Your task to perform on an android device: Check the weather Image 0: 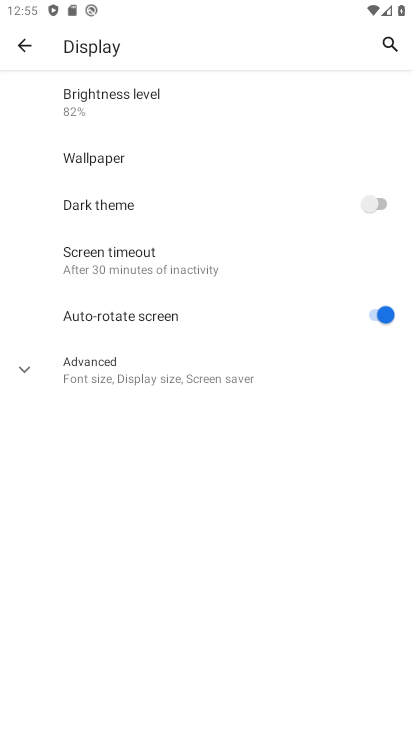
Step 0: press back button
Your task to perform on an android device: Check the weather Image 1: 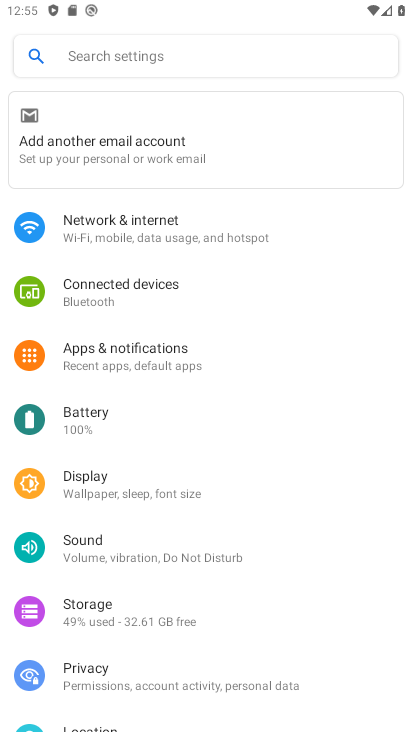
Step 1: press back button
Your task to perform on an android device: Check the weather Image 2: 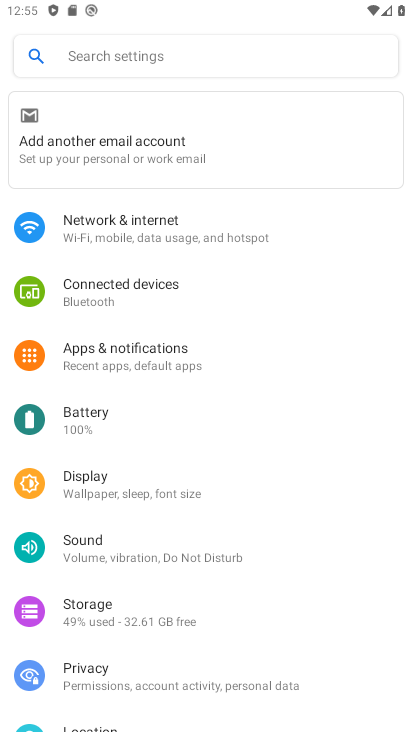
Step 2: press back button
Your task to perform on an android device: Check the weather Image 3: 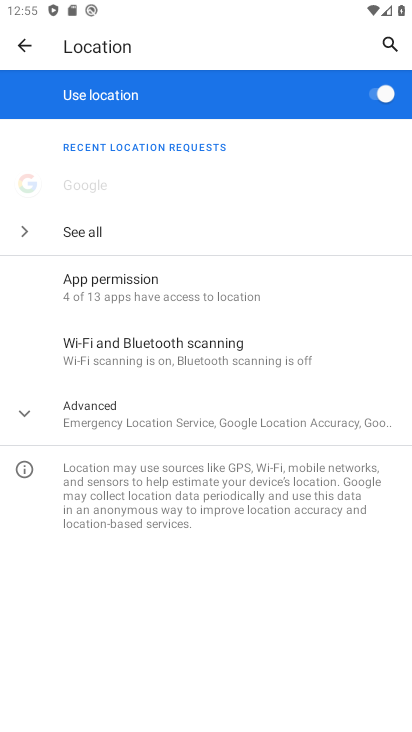
Step 3: press back button
Your task to perform on an android device: Check the weather Image 4: 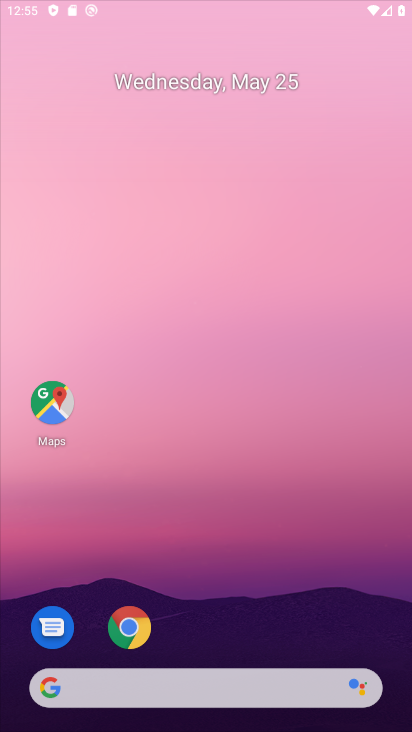
Step 4: press home button
Your task to perform on an android device: Check the weather Image 5: 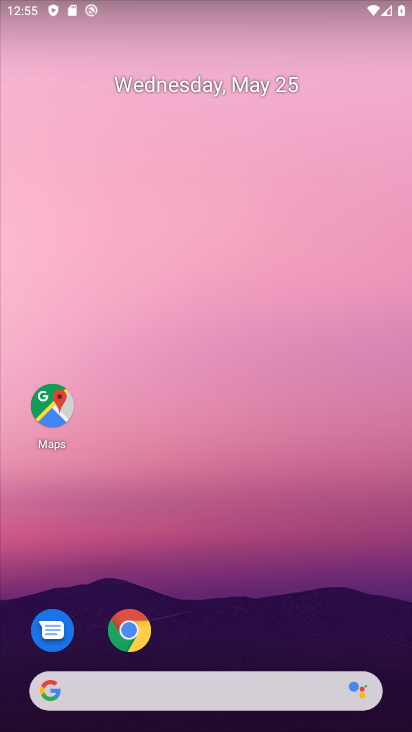
Step 5: drag from (1, 143) to (384, 398)
Your task to perform on an android device: Check the weather Image 6: 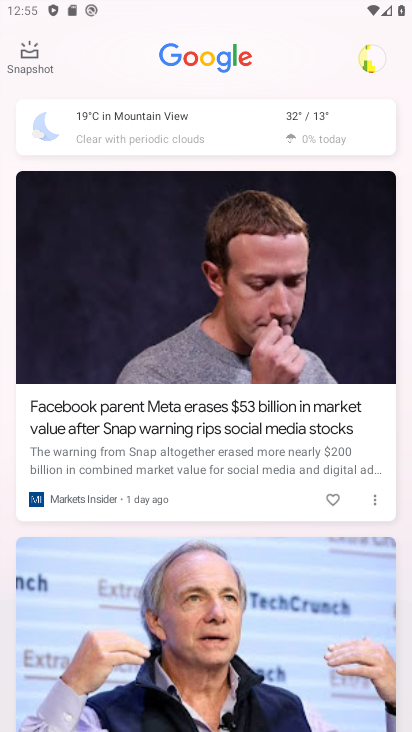
Step 6: drag from (54, 281) to (391, 399)
Your task to perform on an android device: Check the weather Image 7: 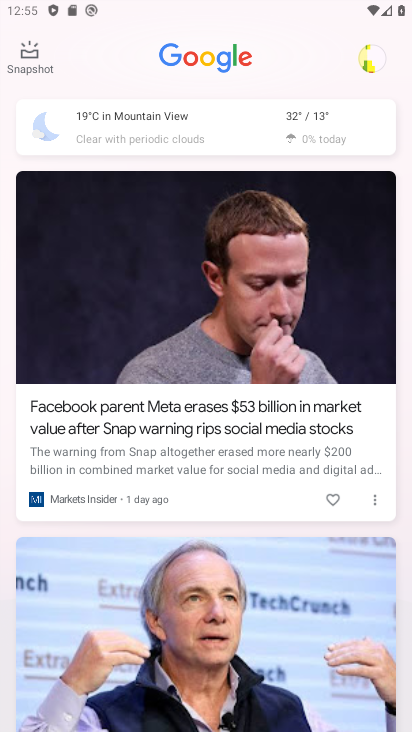
Step 7: click (170, 138)
Your task to perform on an android device: Check the weather Image 8: 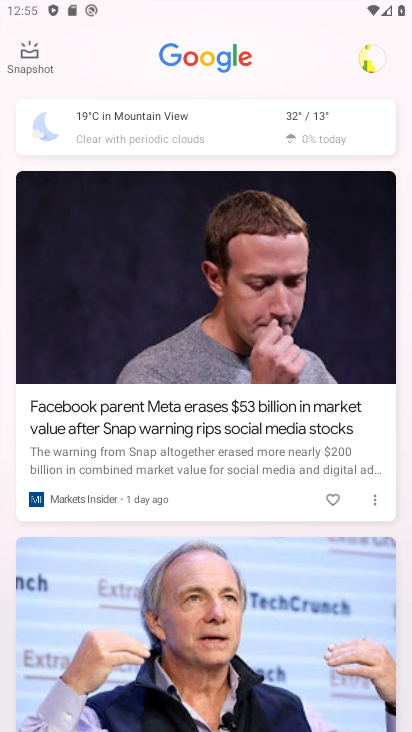
Step 8: click (170, 138)
Your task to perform on an android device: Check the weather Image 9: 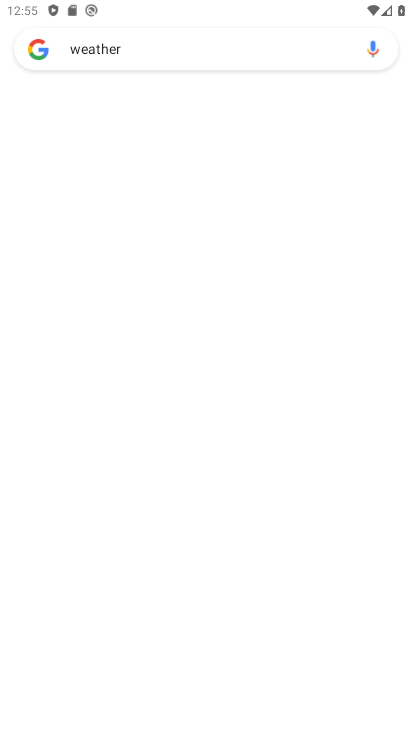
Step 9: click (178, 130)
Your task to perform on an android device: Check the weather Image 10: 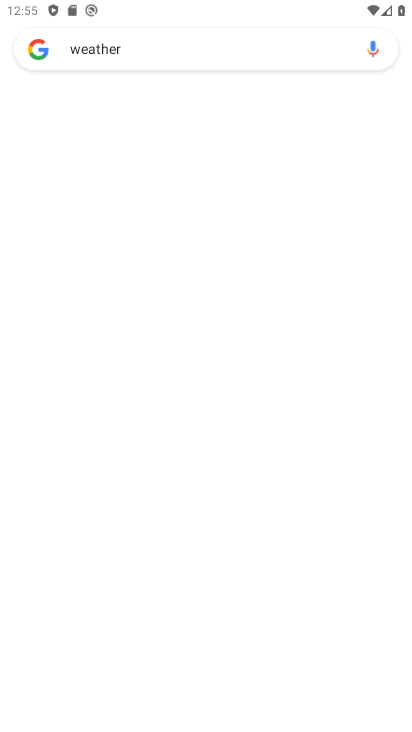
Step 10: click (178, 130)
Your task to perform on an android device: Check the weather Image 11: 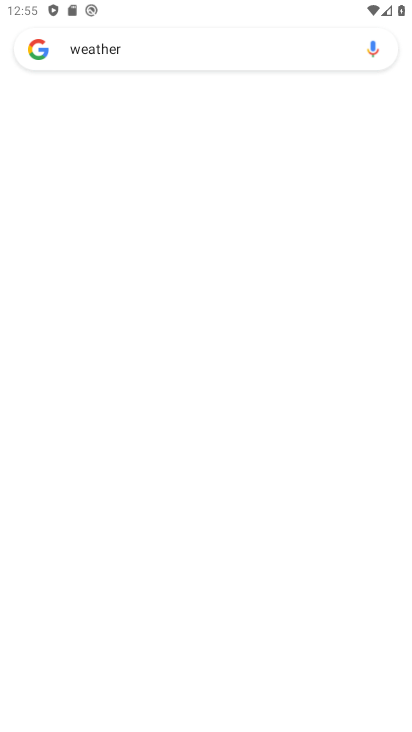
Step 11: click (178, 130)
Your task to perform on an android device: Check the weather Image 12: 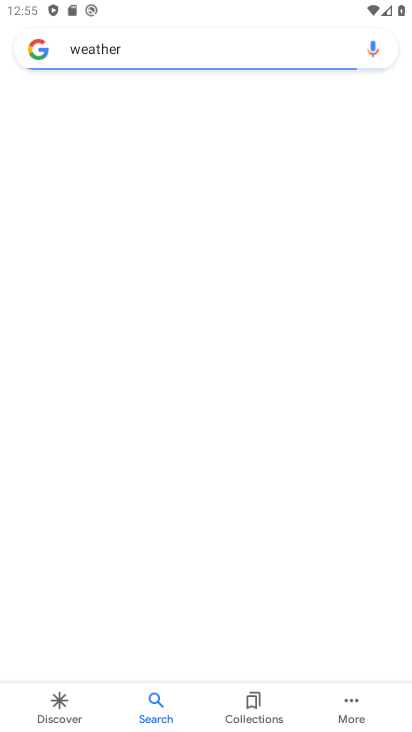
Step 12: click (178, 130)
Your task to perform on an android device: Check the weather Image 13: 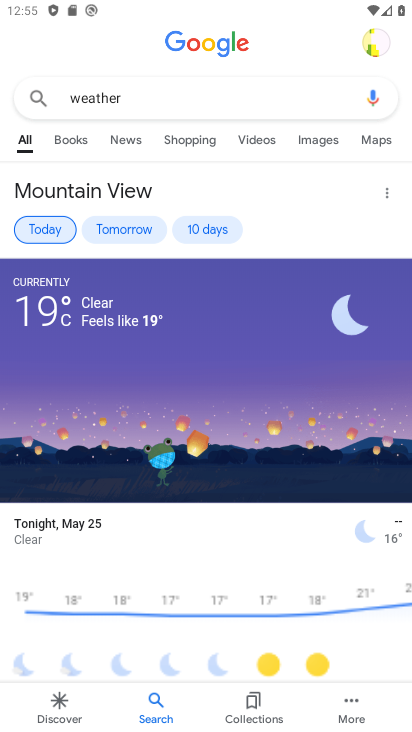
Step 13: click (167, 375)
Your task to perform on an android device: Check the weather Image 14: 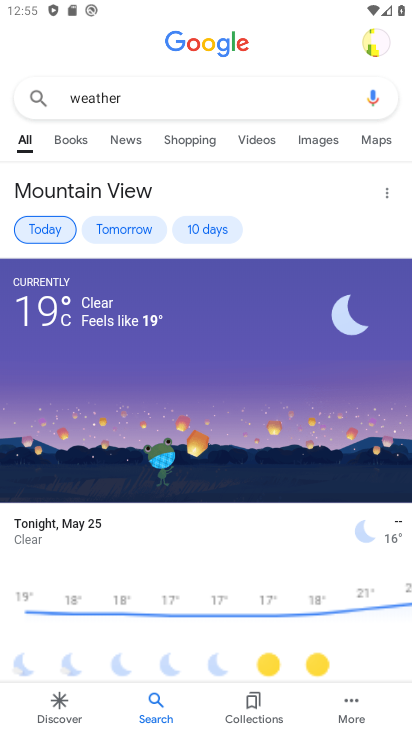
Step 14: drag from (159, 255) to (159, 119)
Your task to perform on an android device: Check the weather Image 15: 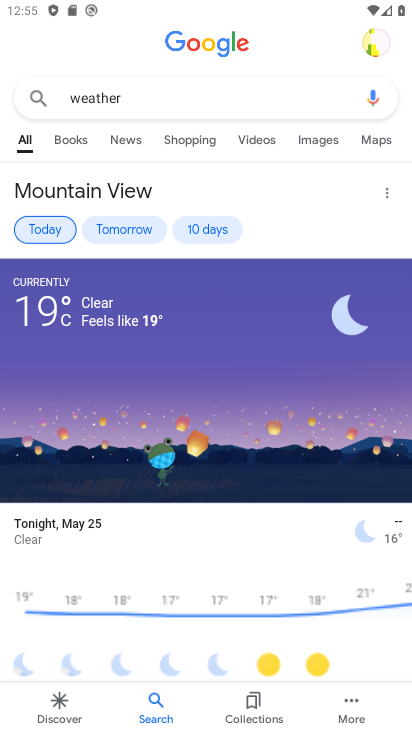
Step 15: drag from (127, 206) to (127, 162)
Your task to perform on an android device: Check the weather Image 16: 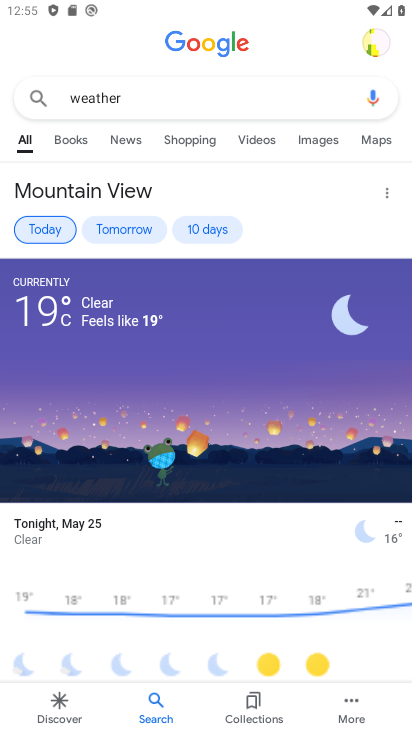
Step 16: drag from (175, 451) to (196, 181)
Your task to perform on an android device: Check the weather Image 17: 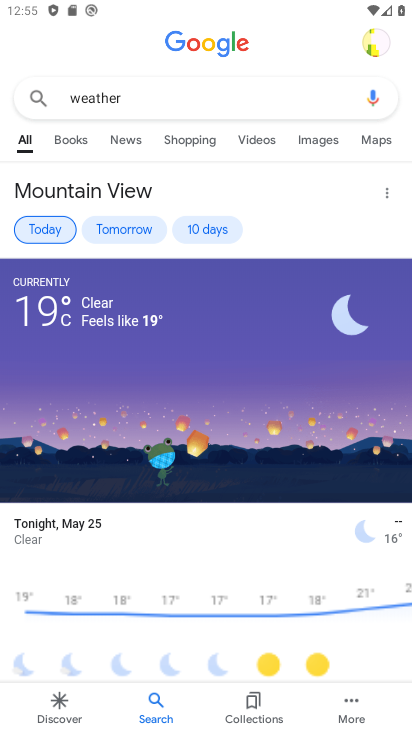
Step 17: drag from (218, 461) to (237, 266)
Your task to perform on an android device: Check the weather Image 18: 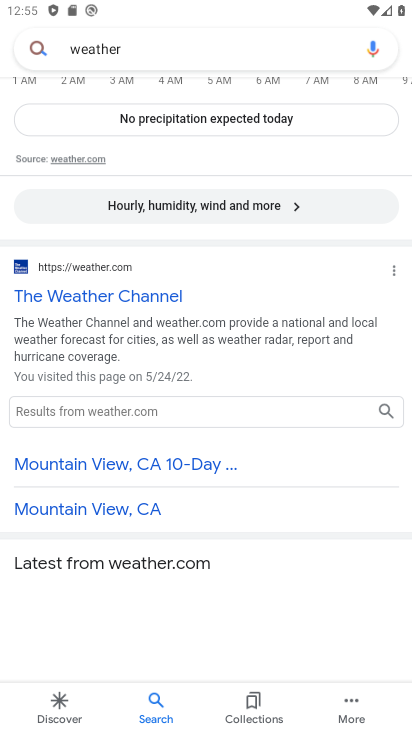
Step 18: drag from (269, 382) to (288, 247)
Your task to perform on an android device: Check the weather Image 19: 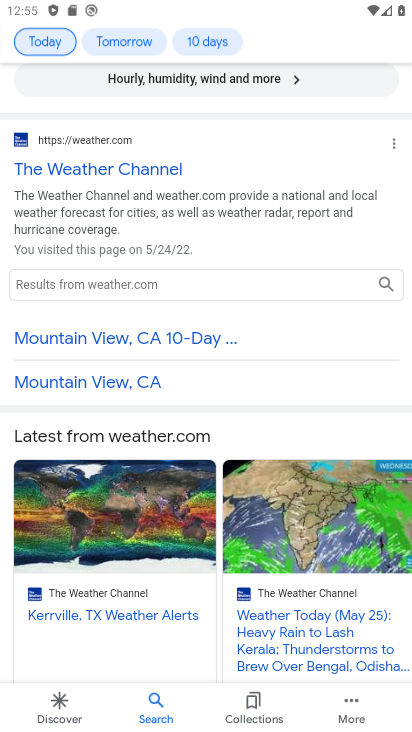
Step 19: click (264, 559)
Your task to perform on an android device: Check the weather Image 20: 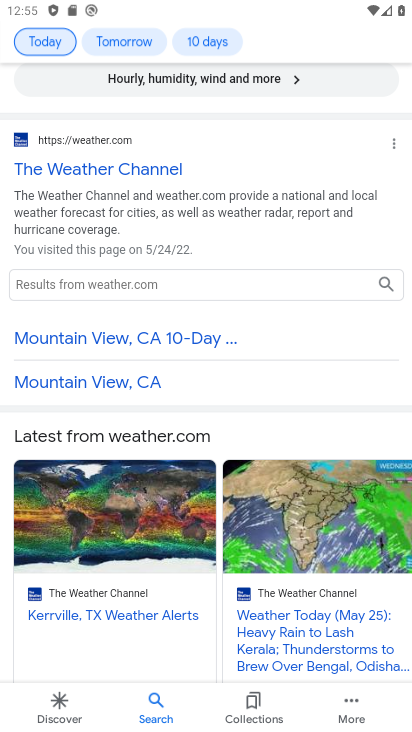
Step 20: task complete